Your task to perform on an android device: Go to accessibility settings Image 0: 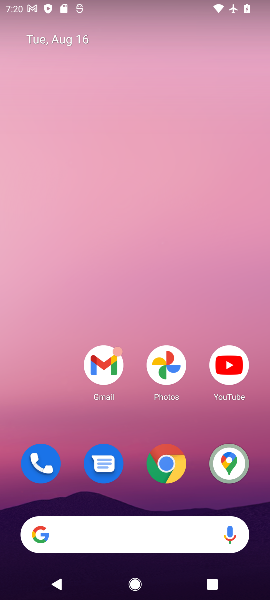
Step 0: drag from (132, 491) to (95, 8)
Your task to perform on an android device: Go to accessibility settings Image 1: 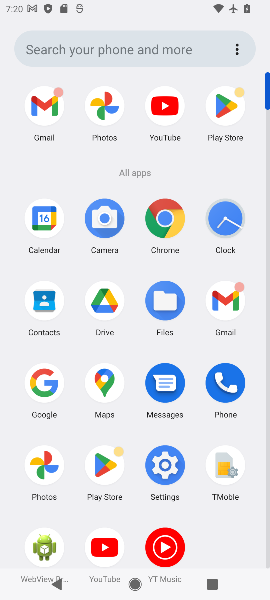
Step 1: click (167, 475)
Your task to perform on an android device: Go to accessibility settings Image 2: 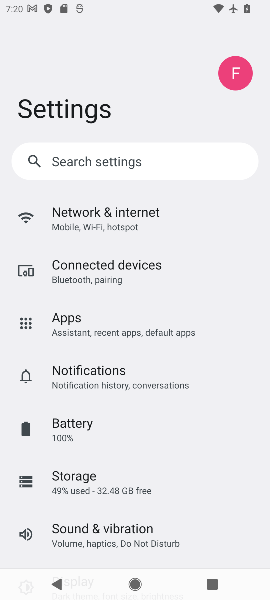
Step 2: drag from (121, 468) to (149, 205)
Your task to perform on an android device: Go to accessibility settings Image 3: 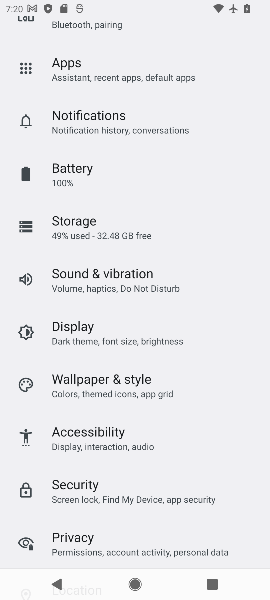
Step 3: click (102, 436)
Your task to perform on an android device: Go to accessibility settings Image 4: 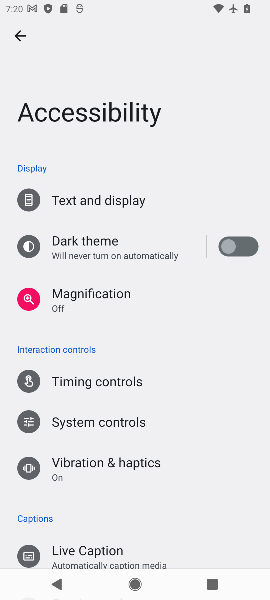
Step 4: task complete